Your task to perform on an android device: turn off translation in the chrome app Image 0: 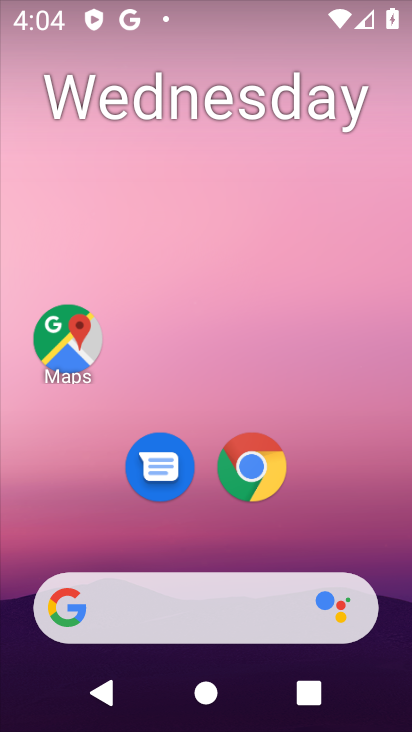
Step 0: click (245, 486)
Your task to perform on an android device: turn off translation in the chrome app Image 1: 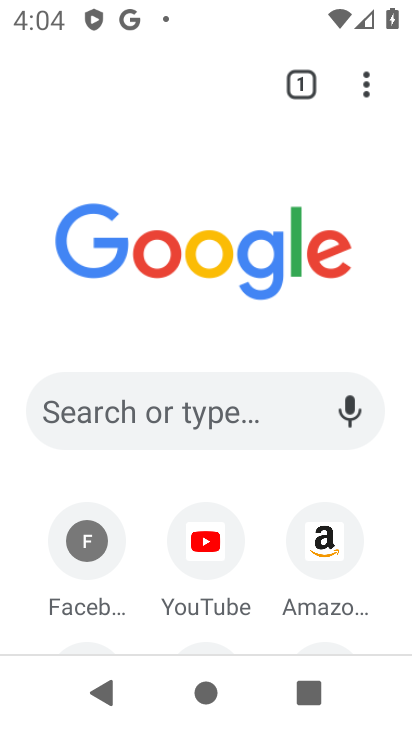
Step 1: click (370, 98)
Your task to perform on an android device: turn off translation in the chrome app Image 2: 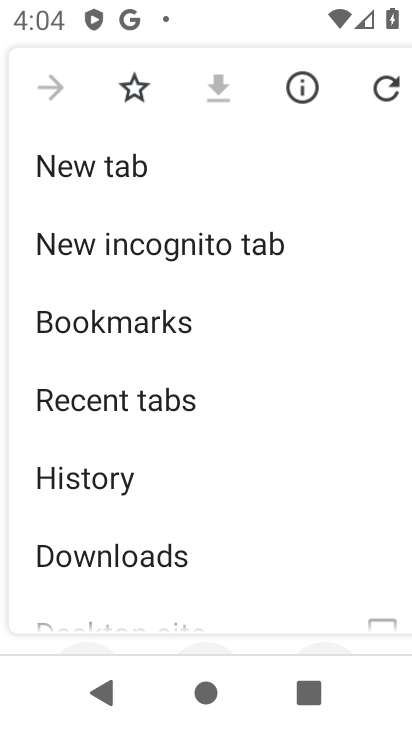
Step 2: drag from (137, 548) to (196, 203)
Your task to perform on an android device: turn off translation in the chrome app Image 3: 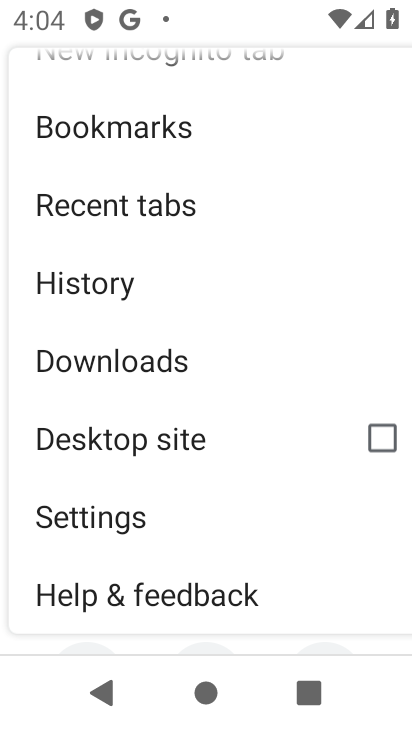
Step 3: drag from (158, 496) to (182, 249)
Your task to perform on an android device: turn off translation in the chrome app Image 4: 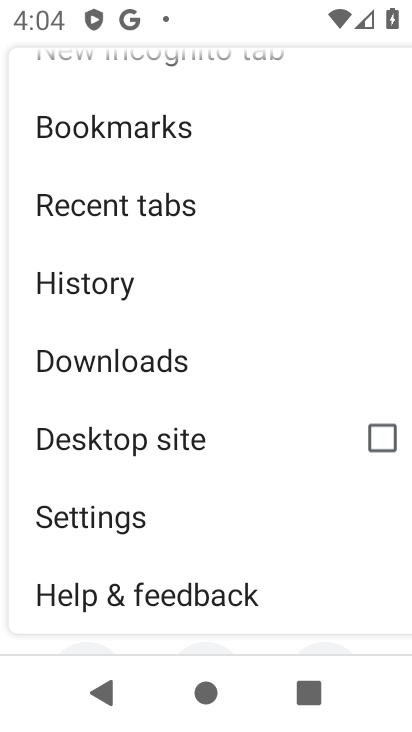
Step 4: click (110, 525)
Your task to perform on an android device: turn off translation in the chrome app Image 5: 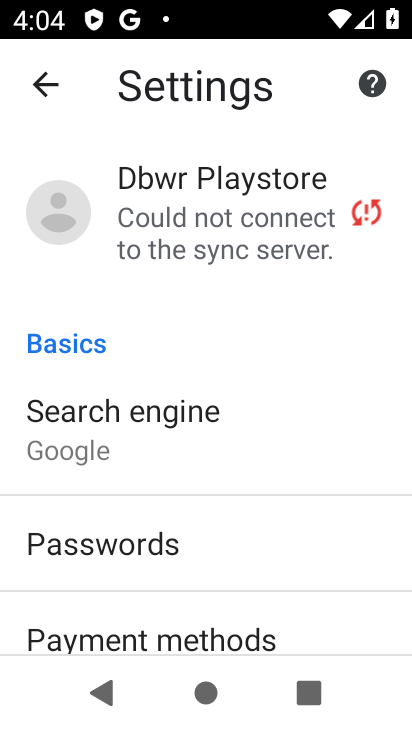
Step 5: drag from (150, 545) to (238, 62)
Your task to perform on an android device: turn off translation in the chrome app Image 6: 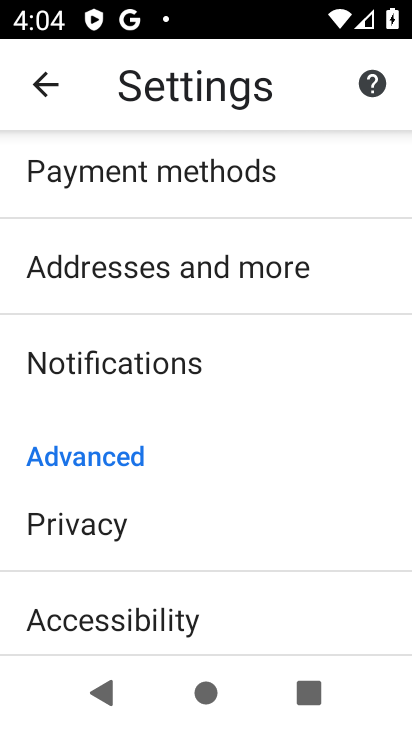
Step 6: drag from (116, 458) to (135, 255)
Your task to perform on an android device: turn off translation in the chrome app Image 7: 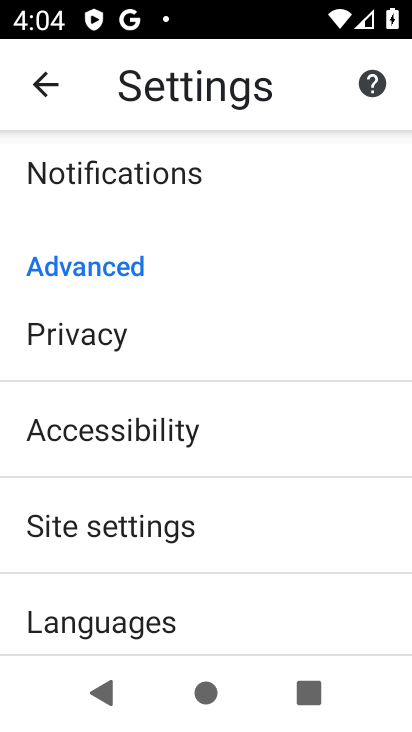
Step 7: drag from (138, 658) to (185, 386)
Your task to perform on an android device: turn off translation in the chrome app Image 8: 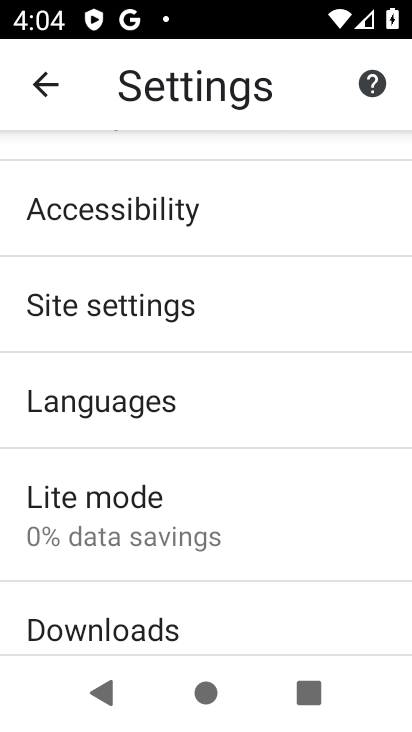
Step 8: click (129, 409)
Your task to perform on an android device: turn off translation in the chrome app Image 9: 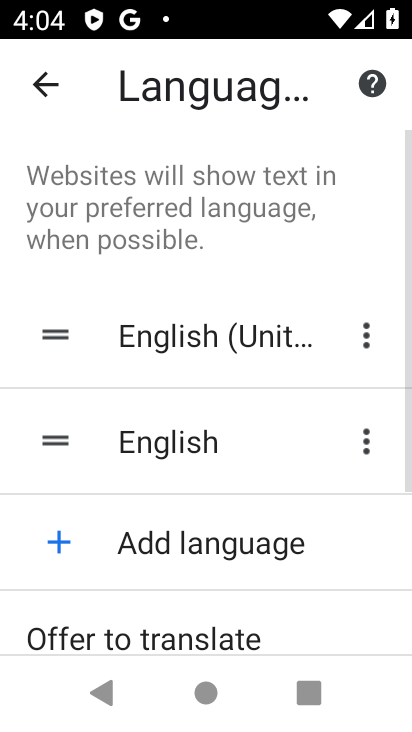
Step 9: drag from (222, 556) to (273, 231)
Your task to perform on an android device: turn off translation in the chrome app Image 10: 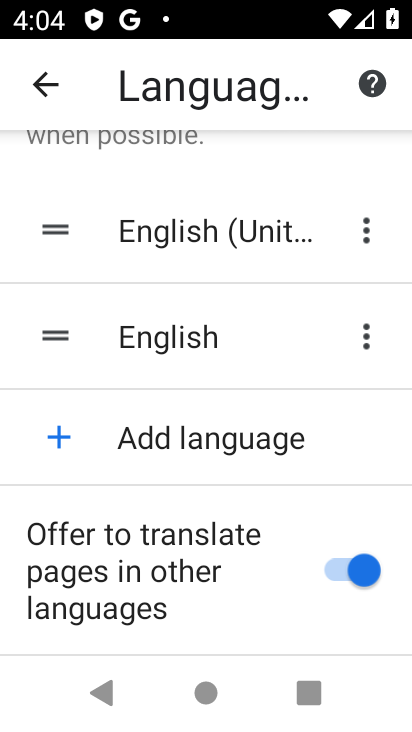
Step 10: click (317, 583)
Your task to perform on an android device: turn off translation in the chrome app Image 11: 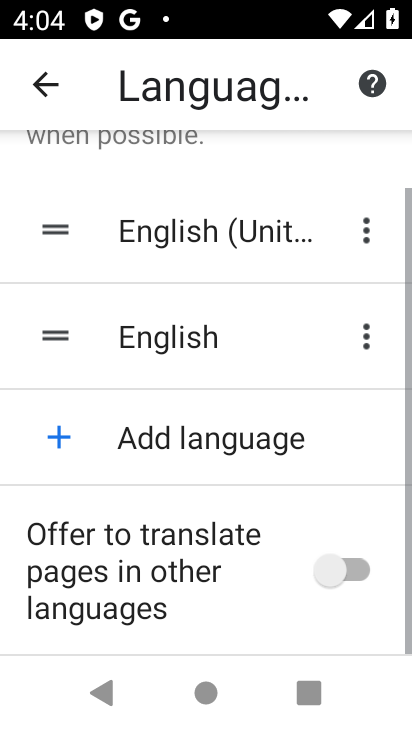
Step 11: task complete